Your task to perform on an android device: Open CNN.com Image 0: 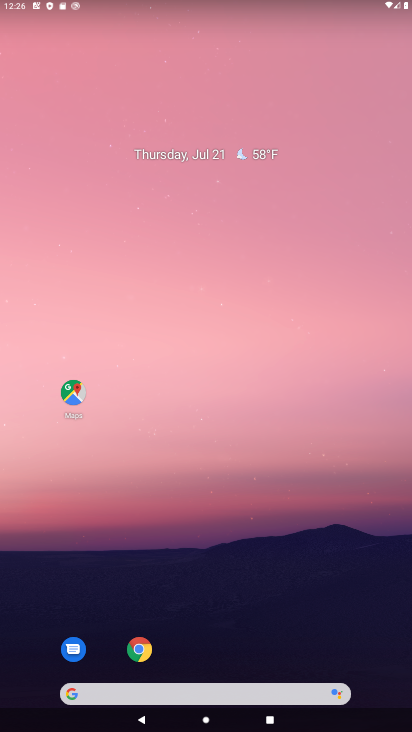
Step 0: click (140, 648)
Your task to perform on an android device: Open CNN.com Image 1: 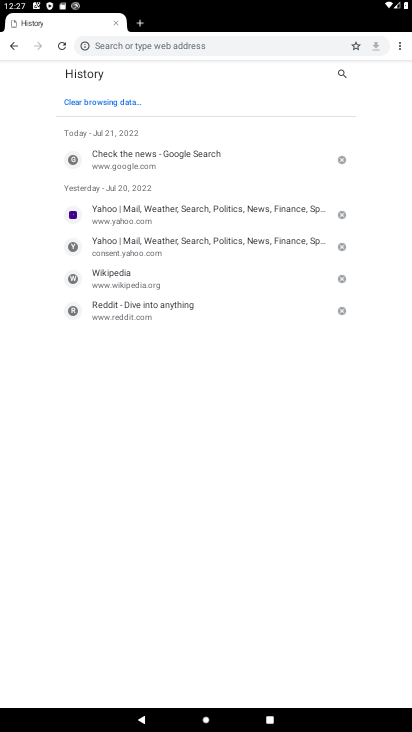
Step 1: click (186, 39)
Your task to perform on an android device: Open CNN.com Image 2: 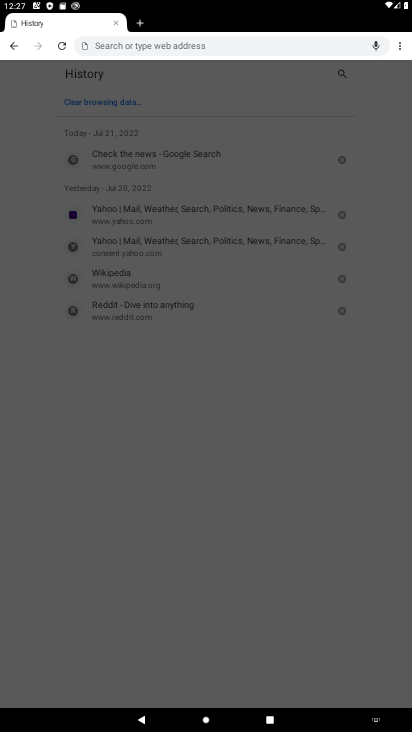
Step 2: type "CNN.com"
Your task to perform on an android device: Open CNN.com Image 3: 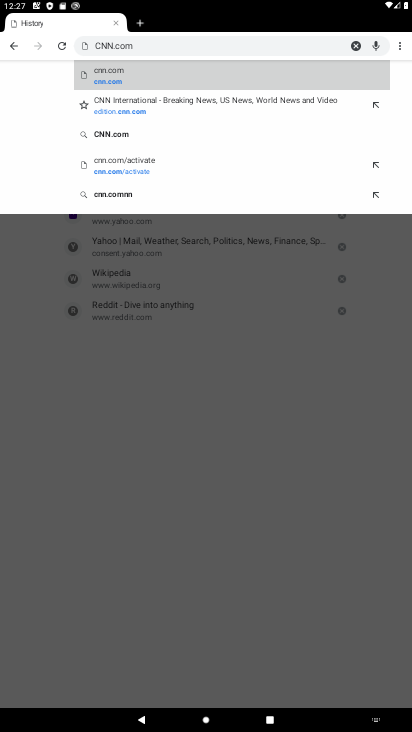
Step 3: click (116, 73)
Your task to perform on an android device: Open CNN.com Image 4: 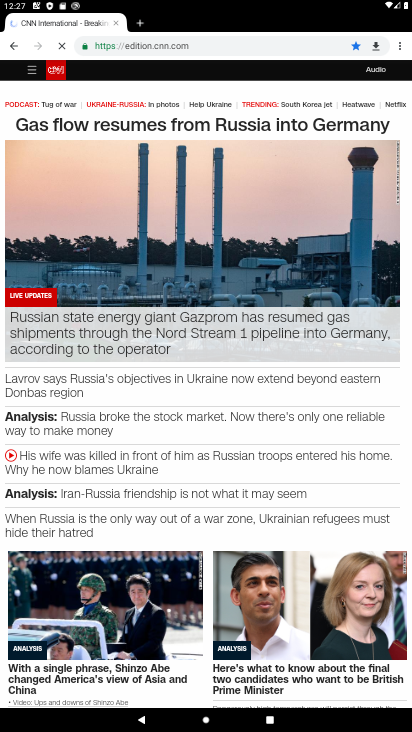
Step 4: drag from (205, 548) to (206, 273)
Your task to perform on an android device: Open CNN.com Image 5: 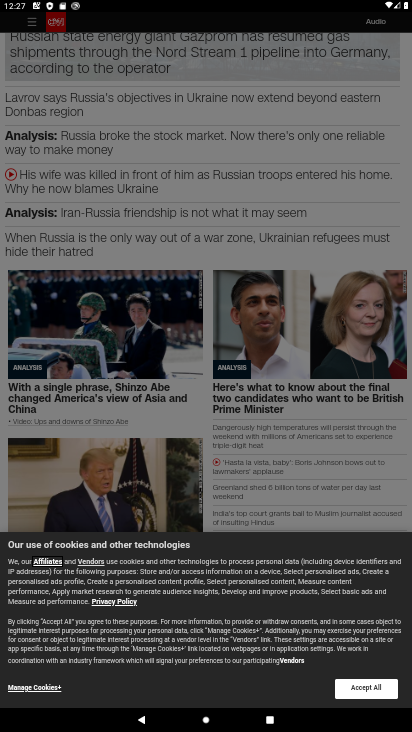
Step 5: click (368, 687)
Your task to perform on an android device: Open CNN.com Image 6: 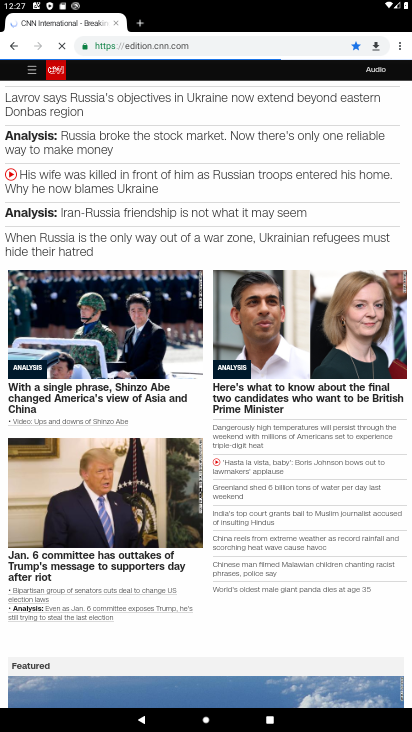
Step 6: task complete